Your task to perform on an android device: Open the stopwatch Image 0: 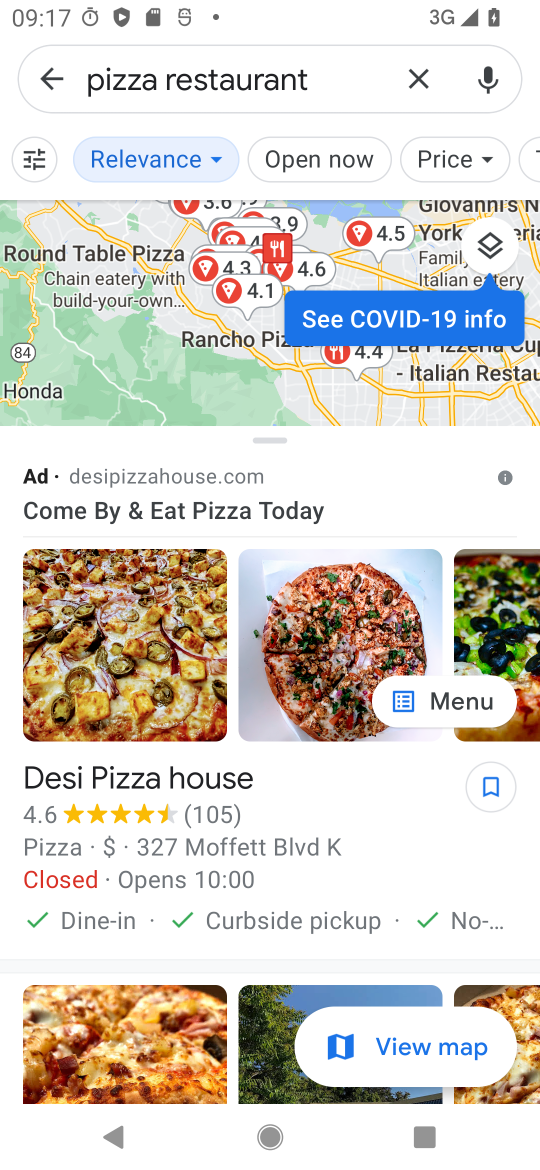
Step 0: press home button
Your task to perform on an android device: Open the stopwatch Image 1: 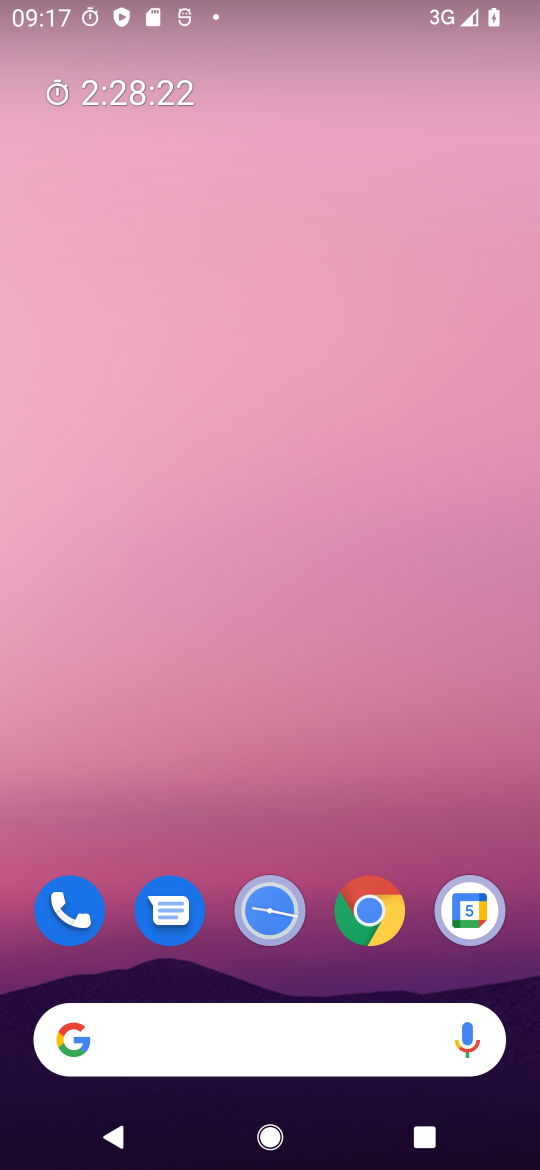
Step 1: drag from (275, 1040) to (409, 167)
Your task to perform on an android device: Open the stopwatch Image 2: 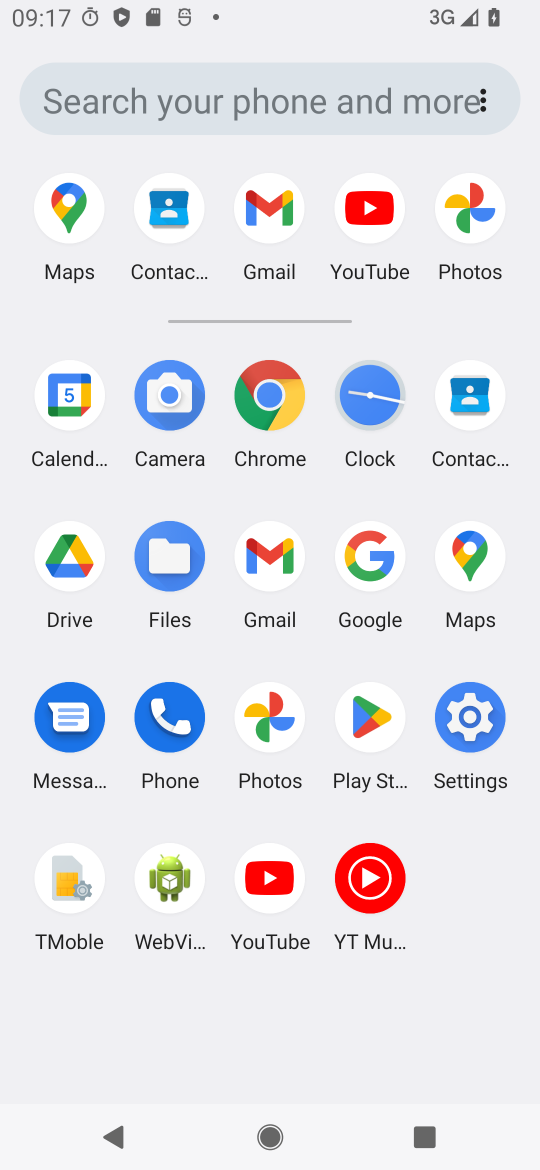
Step 2: click (370, 414)
Your task to perform on an android device: Open the stopwatch Image 3: 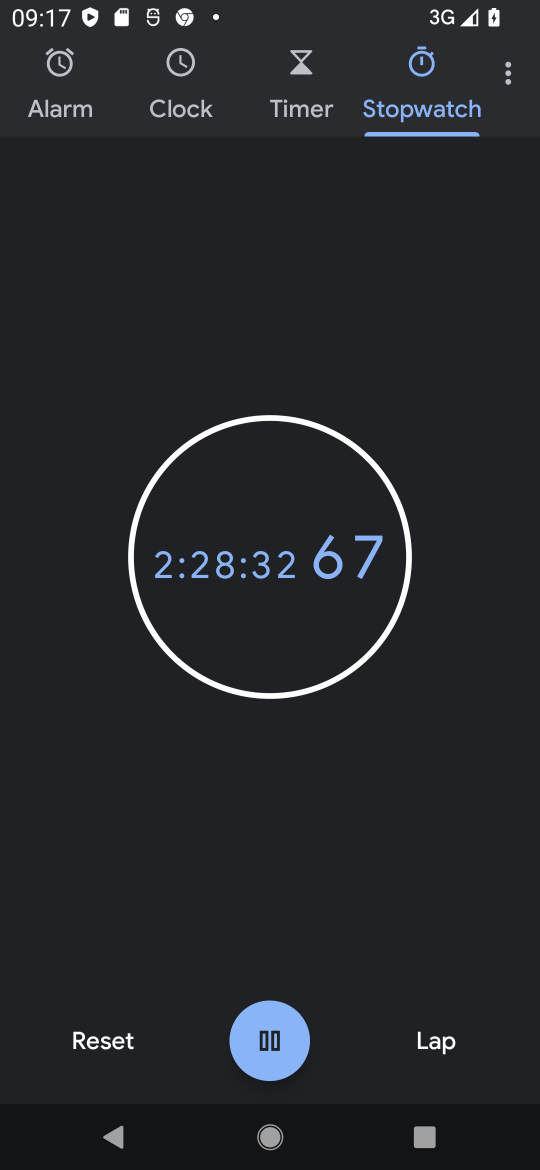
Step 3: click (116, 1030)
Your task to perform on an android device: Open the stopwatch Image 4: 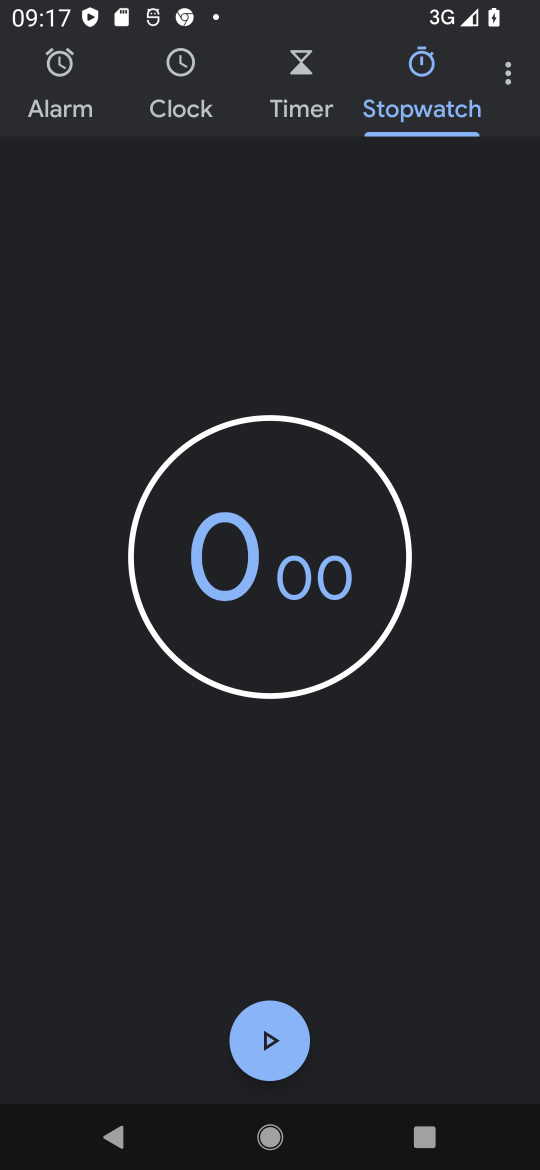
Step 4: click (292, 1031)
Your task to perform on an android device: Open the stopwatch Image 5: 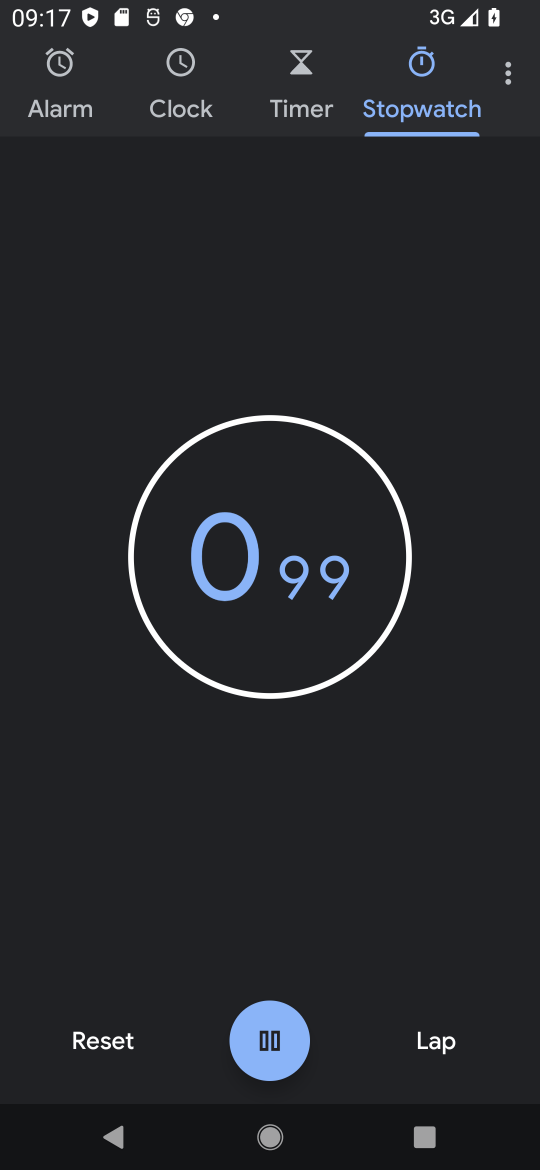
Step 5: task complete